Your task to perform on an android device: toggle priority inbox in the gmail app Image 0: 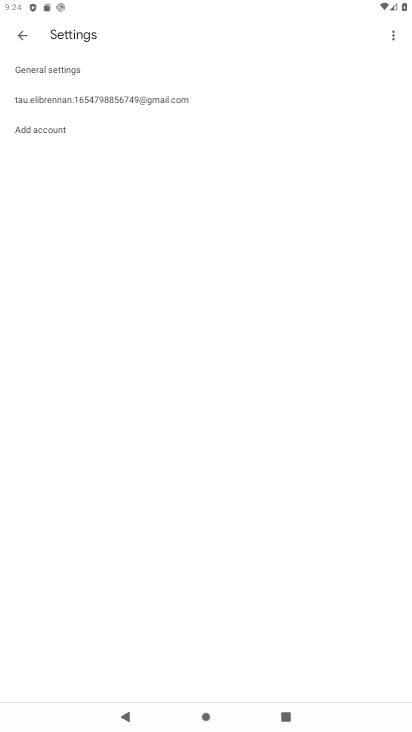
Step 0: press home button
Your task to perform on an android device: toggle priority inbox in the gmail app Image 1: 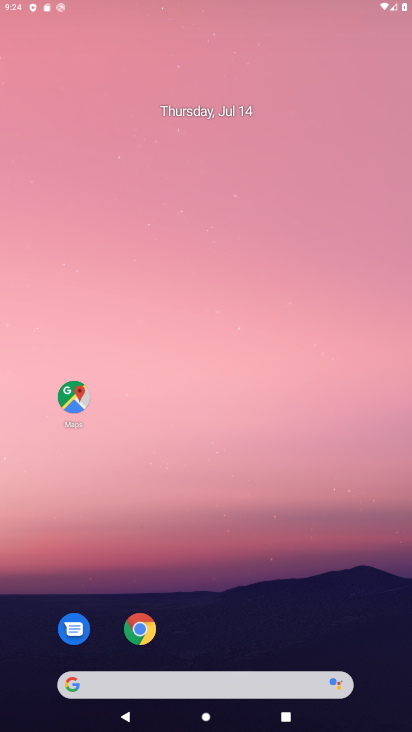
Step 1: drag from (222, 648) to (268, 101)
Your task to perform on an android device: toggle priority inbox in the gmail app Image 2: 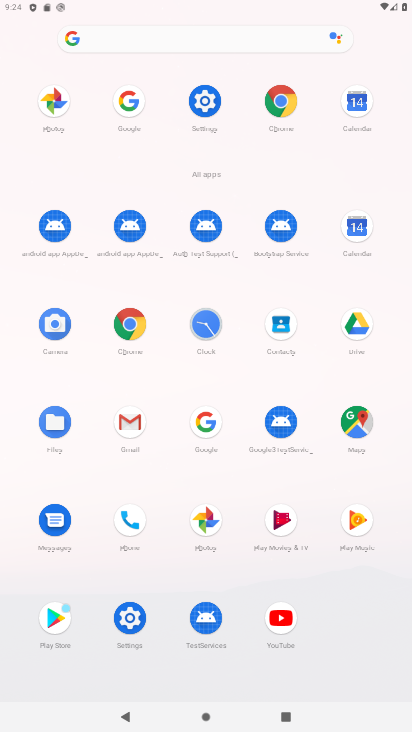
Step 2: click (128, 417)
Your task to perform on an android device: toggle priority inbox in the gmail app Image 3: 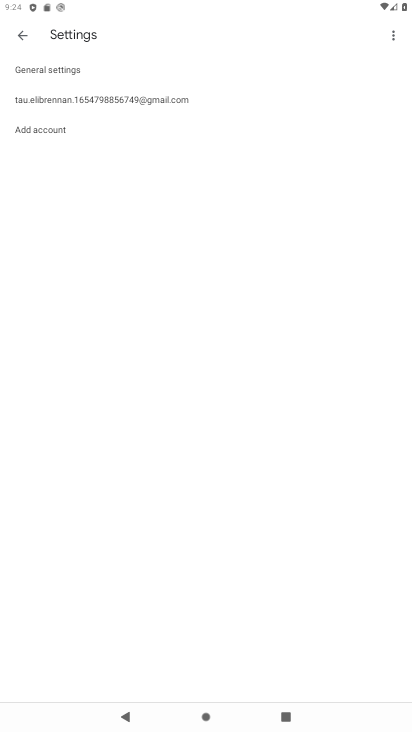
Step 3: press back button
Your task to perform on an android device: toggle priority inbox in the gmail app Image 4: 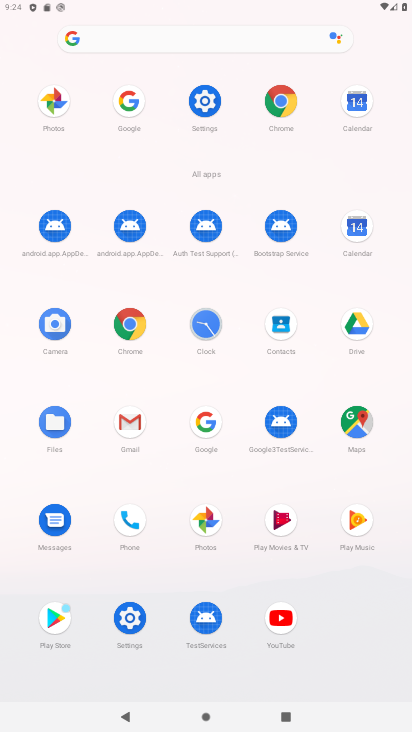
Step 4: click (130, 421)
Your task to perform on an android device: toggle priority inbox in the gmail app Image 5: 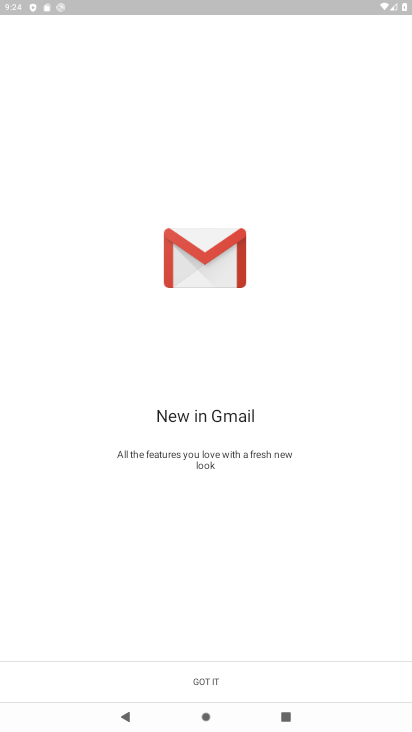
Step 5: click (211, 676)
Your task to perform on an android device: toggle priority inbox in the gmail app Image 6: 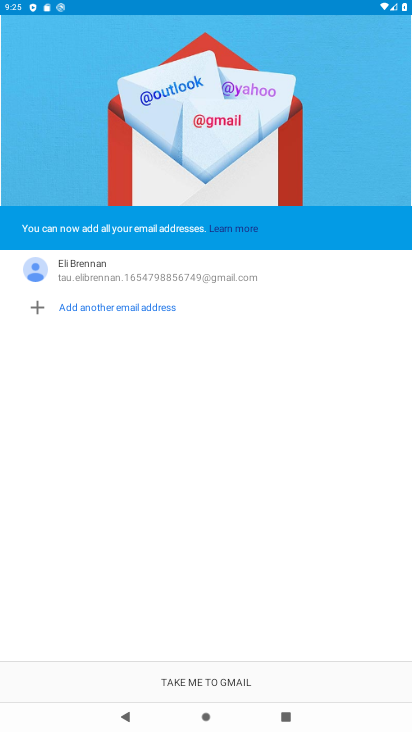
Step 6: click (205, 684)
Your task to perform on an android device: toggle priority inbox in the gmail app Image 7: 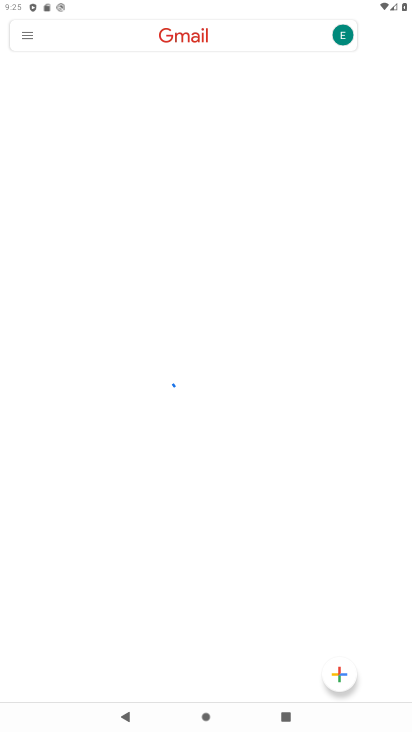
Step 7: click (26, 37)
Your task to perform on an android device: toggle priority inbox in the gmail app Image 8: 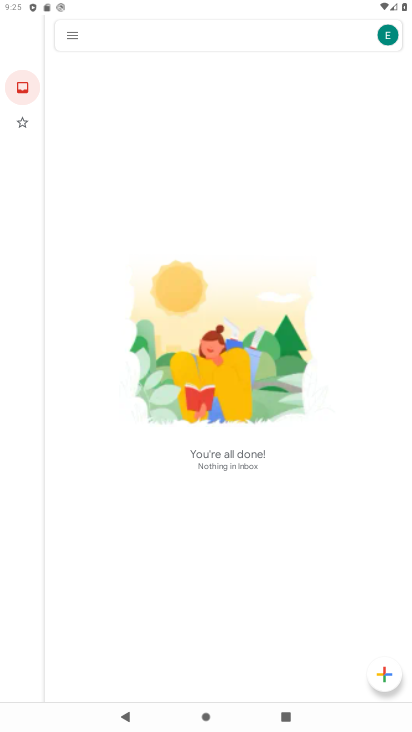
Step 8: click (66, 35)
Your task to perform on an android device: toggle priority inbox in the gmail app Image 9: 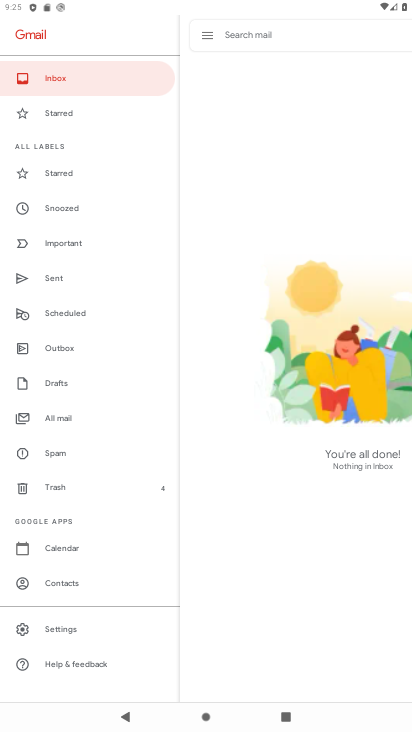
Step 9: click (55, 621)
Your task to perform on an android device: toggle priority inbox in the gmail app Image 10: 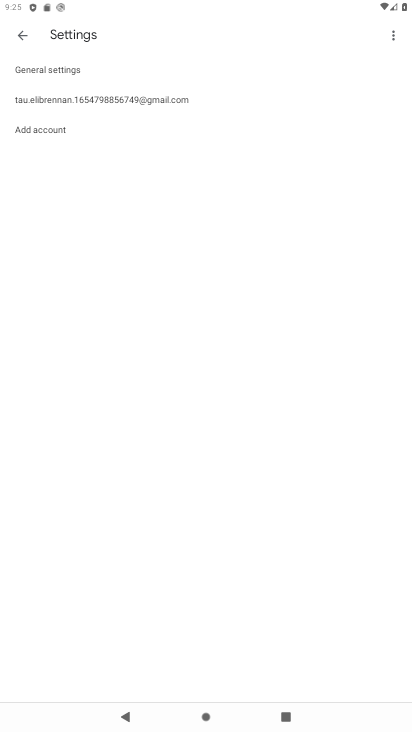
Step 10: click (61, 104)
Your task to perform on an android device: toggle priority inbox in the gmail app Image 11: 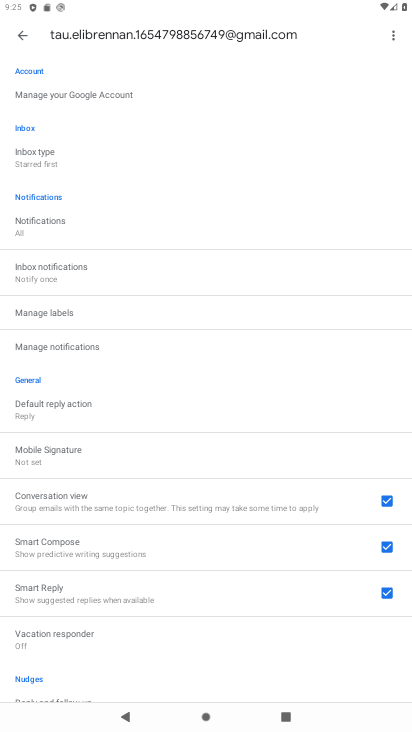
Step 11: click (47, 163)
Your task to perform on an android device: toggle priority inbox in the gmail app Image 12: 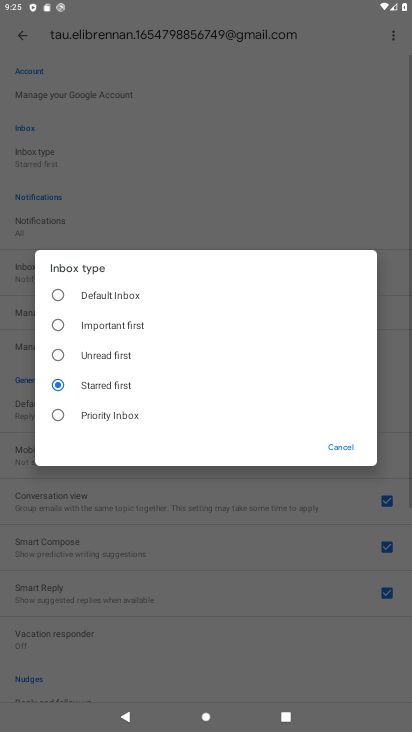
Step 12: click (62, 415)
Your task to perform on an android device: toggle priority inbox in the gmail app Image 13: 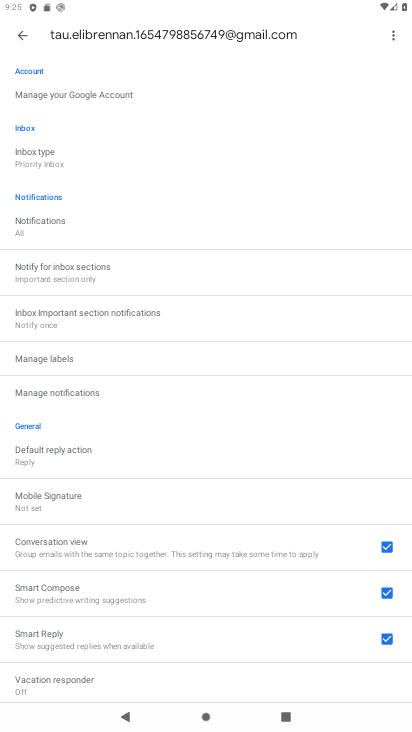
Step 13: task complete